Your task to perform on an android device: Open Chrome and go to settings Image 0: 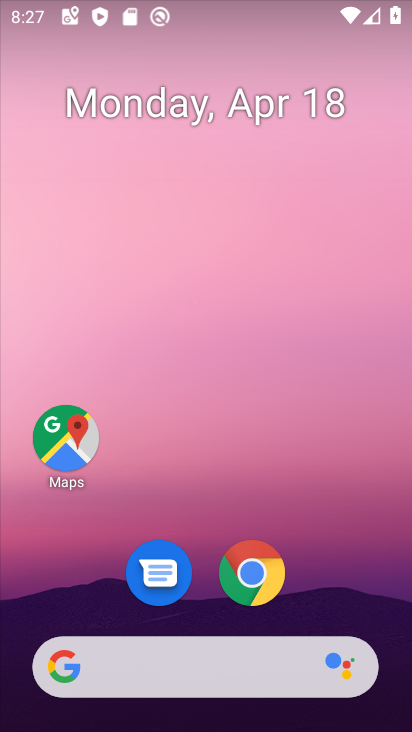
Step 0: click (270, 591)
Your task to perform on an android device: Open Chrome and go to settings Image 1: 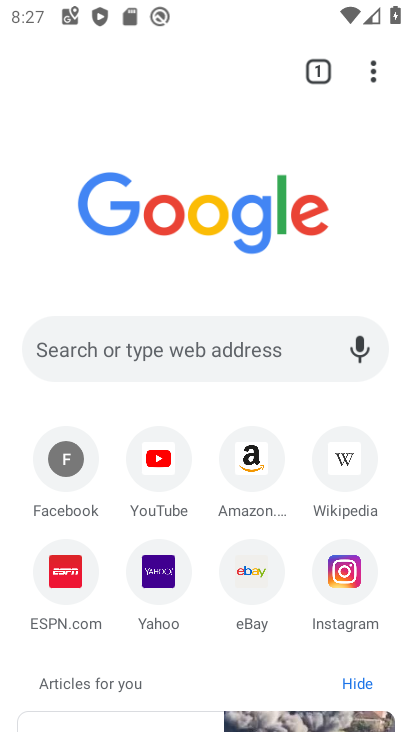
Step 1: click (375, 79)
Your task to perform on an android device: Open Chrome and go to settings Image 2: 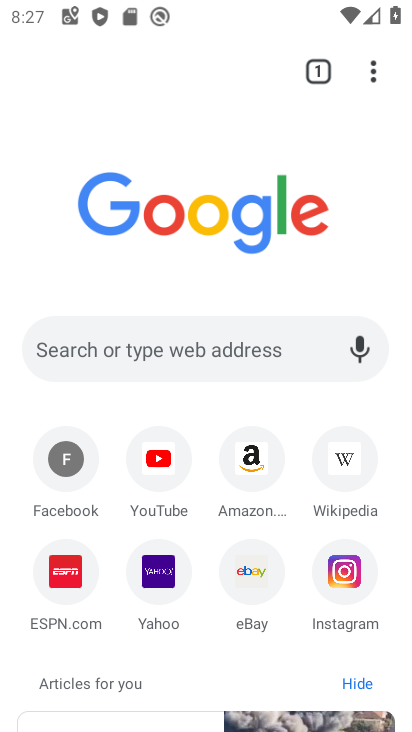
Step 2: task complete